Your task to perform on an android device: toggle translation in the chrome app Image 0: 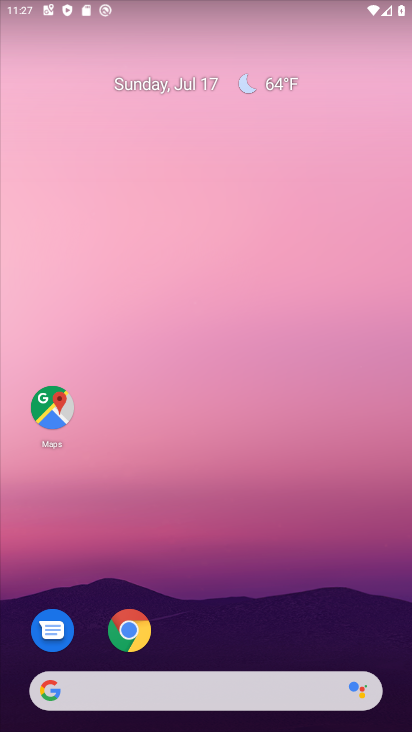
Step 0: click (130, 630)
Your task to perform on an android device: toggle translation in the chrome app Image 1: 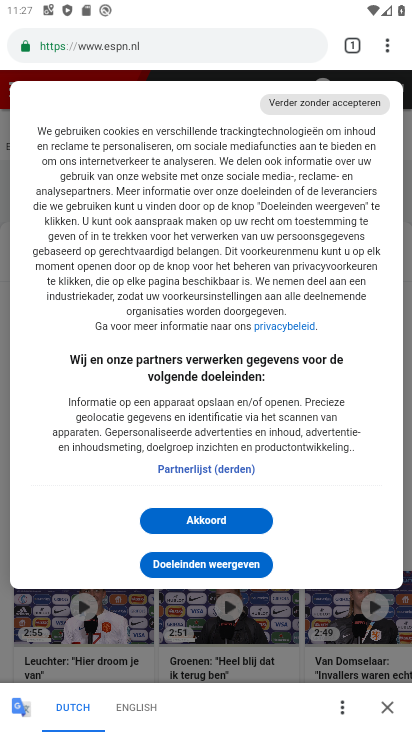
Step 1: click (385, 51)
Your task to perform on an android device: toggle translation in the chrome app Image 2: 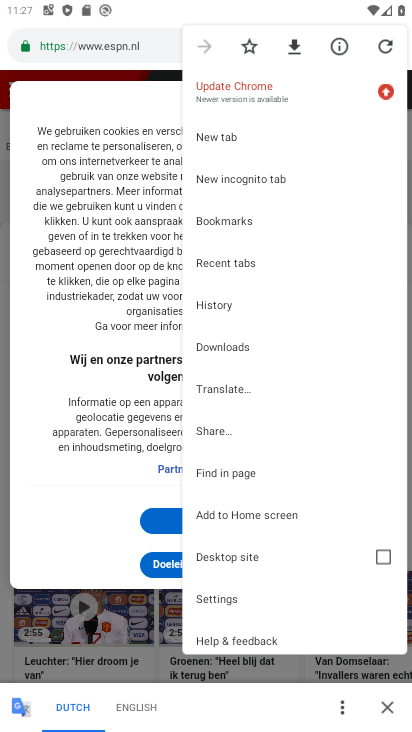
Step 2: click (216, 594)
Your task to perform on an android device: toggle translation in the chrome app Image 3: 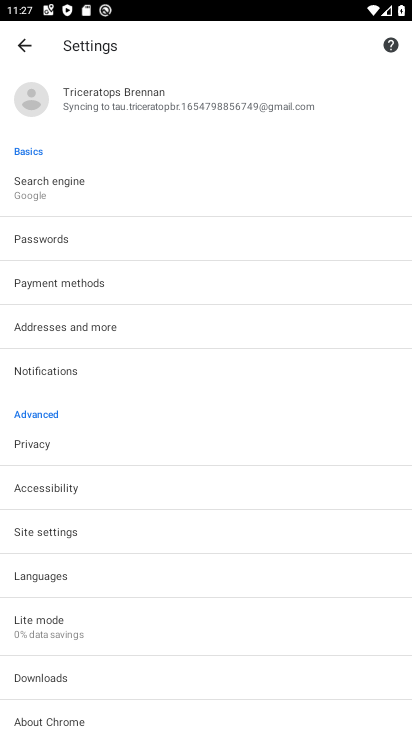
Step 3: click (39, 575)
Your task to perform on an android device: toggle translation in the chrome app Image 4: 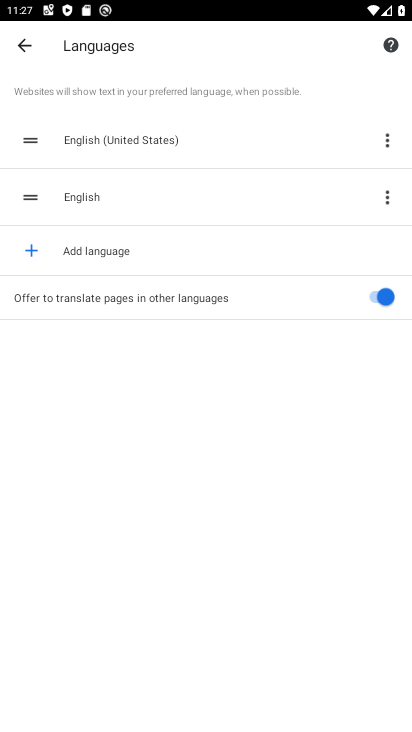
Step 4: click (370, 297)
Your task to perform on an android device: toggle translation in the chrome app Image 5: 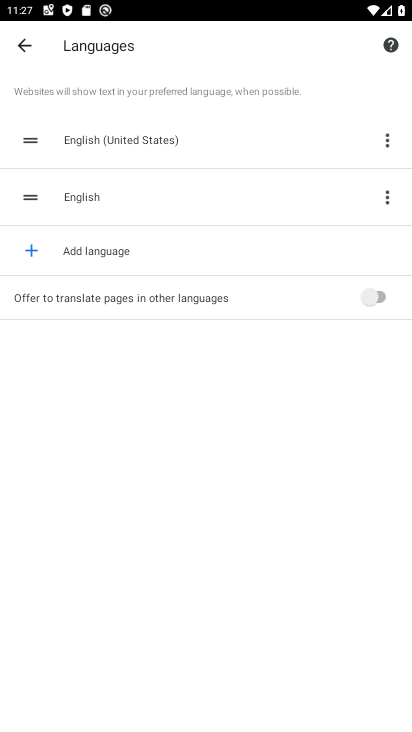
Step 5: task complete